Your task to perform on an android device: Open Wikipedia Image 0: 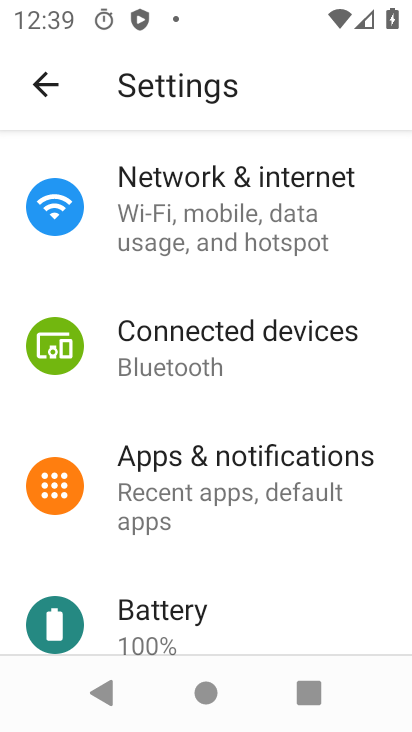
Step 0: press home button
Your task to perform on an android device: Open Wikipedia Image 1: 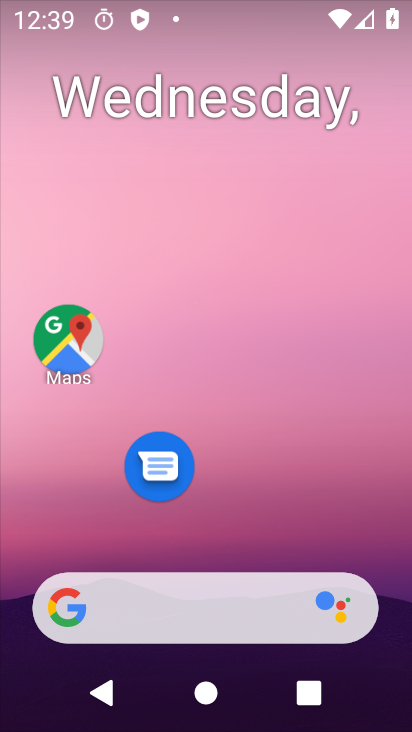
Step 1: drag from (249, 505) to (266, 208)
Your task to perform on an android device: Open Wikipedia Image 2: 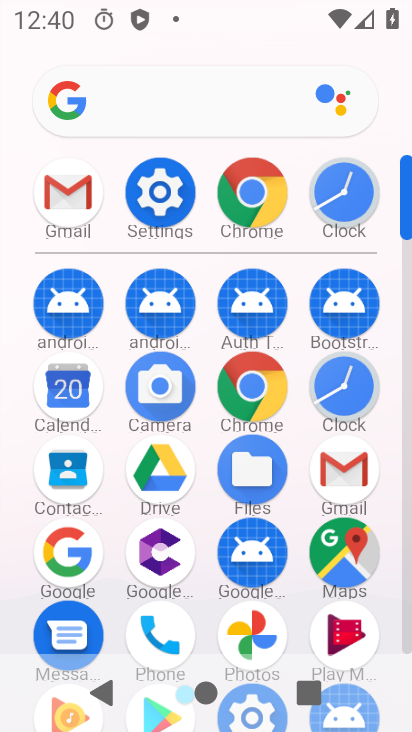
Step 2: click (261, 199)
Your task to perform on an android device: Open Wikipedia Image 3: 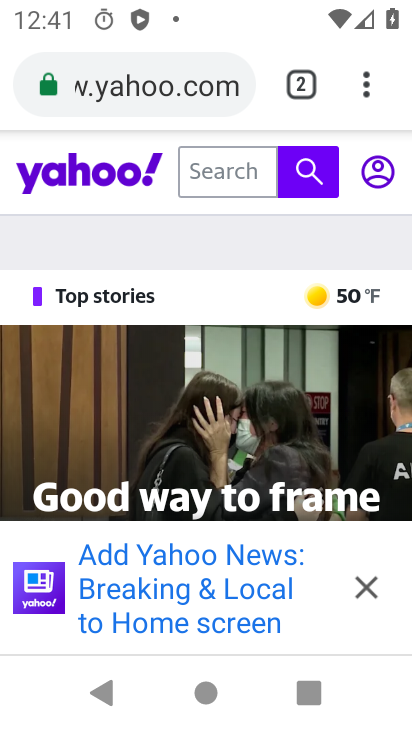
Step 3: click (160, 102)
Your task to perform on an android device: Open Wikipedia Image 4: 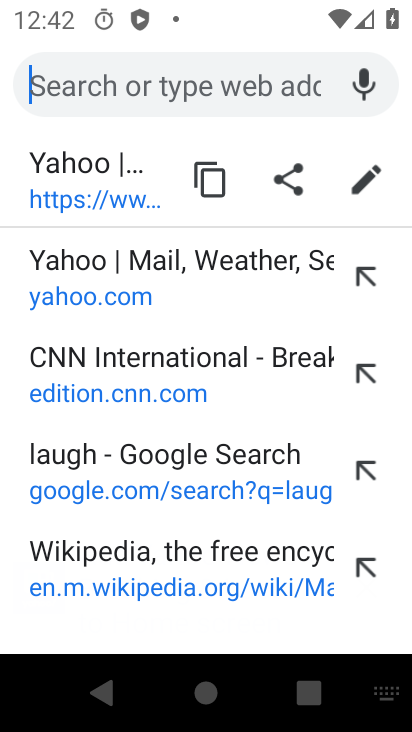
Step 4: type "wikipedia"
Your task to perform on an android device: Open Wikipedia Image 5: 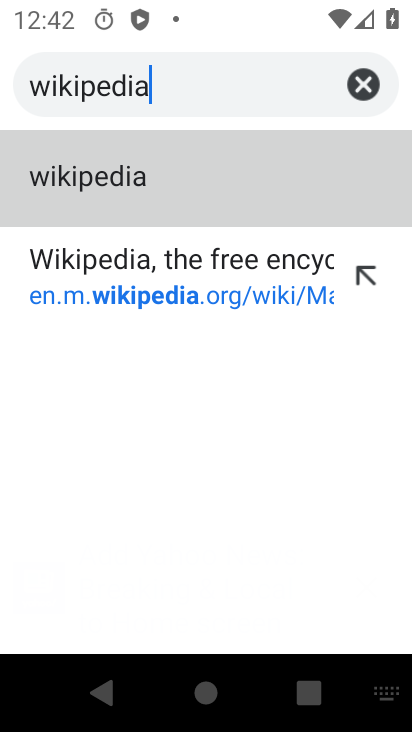
Step 5: click (144, 255)
Your task to perform on an android device: Open Wikipedia Image 6: 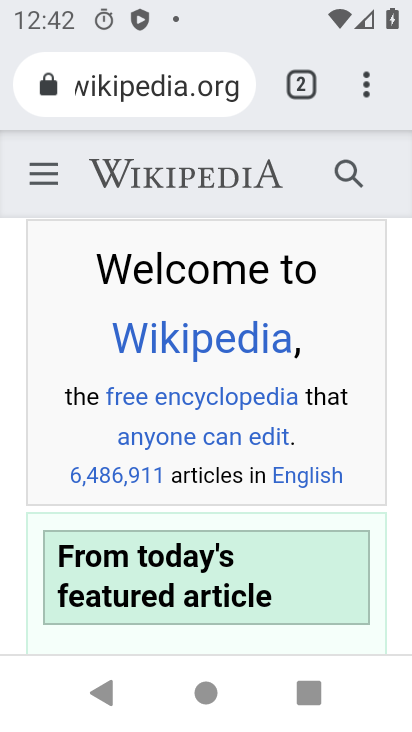
Step 6: task complete